Your task to perform on an android device: open a bookmark in the chrome app Image 0: 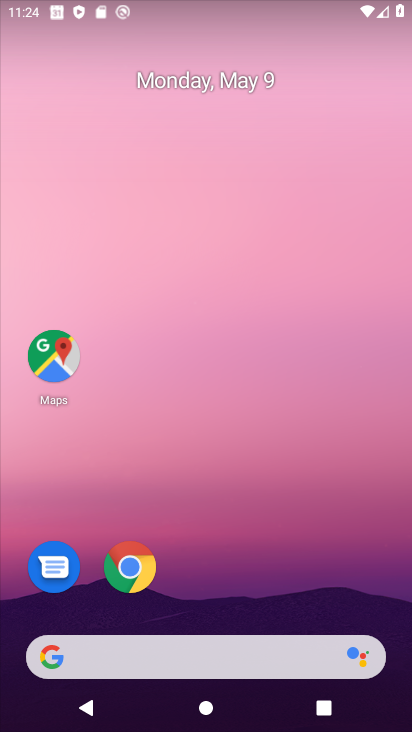
Step 0: drag from (372, 614) to (287, 2)
Your task to perform on an android device: open a bookmark in the chrome app Image 1: 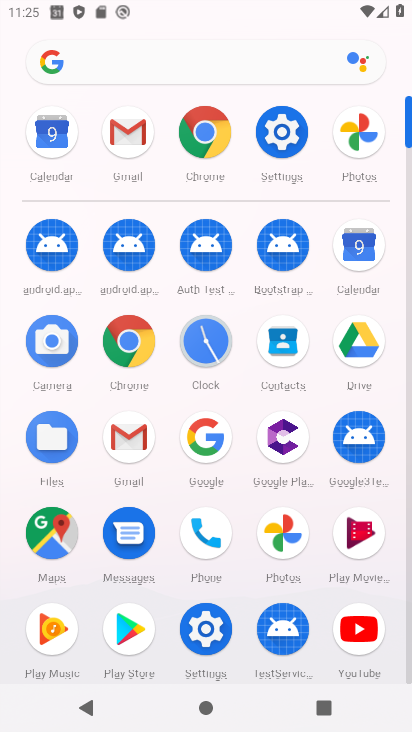
Step 1: click (138, 340)
Your task to perform on an android device: open a bookmark in the chrome app Image 2: 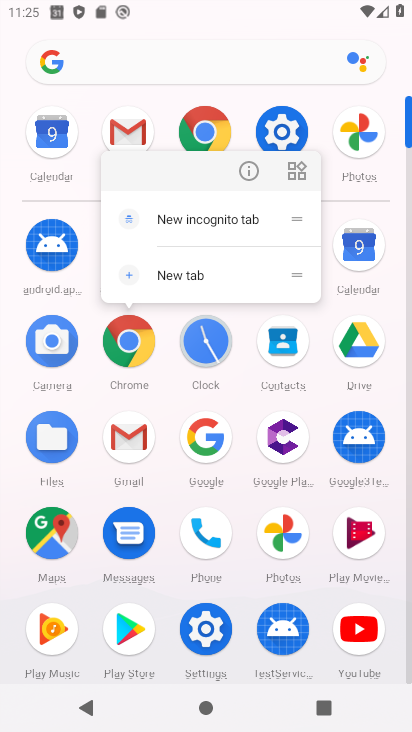
Step 2: click (138, 340)
Your task to perform on an android device: open a bookmark in the chrome app Image 3: 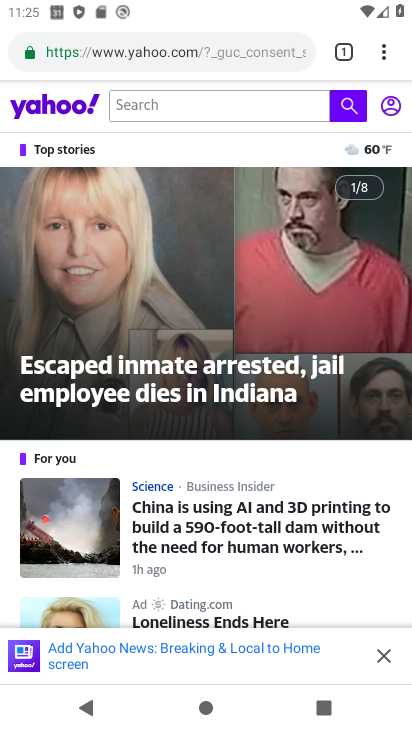
Step 3: press back button
Your task to perform on an android device: open a bookmark in the chrome app Image 4: 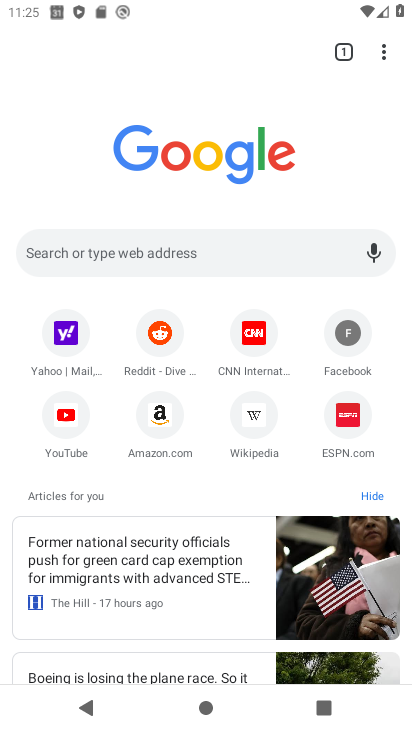
Step 4: click (384, 43)
Your task to perform on an android device: open a bookmark in the chrome app Image 5: 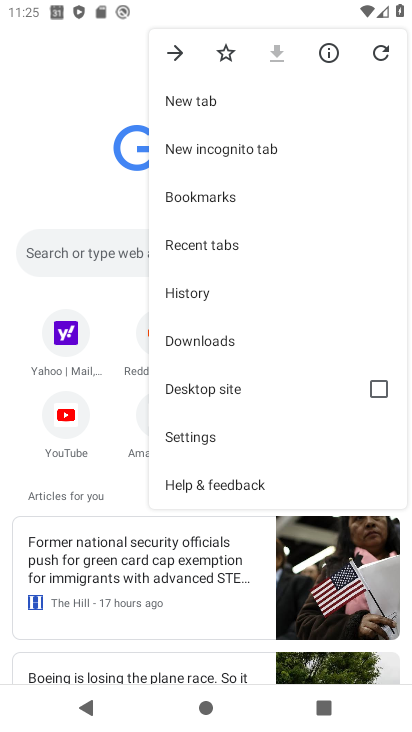
Step 5: click (178, 202)
Your task to perform on an android device: open a bookmark in the chrome app Image 6: 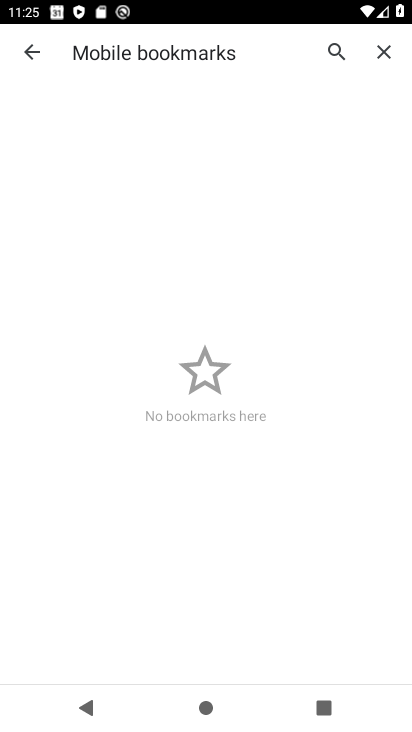
Step 6: task complete